Your task to perform on an android device: Go to internet settings Image 0: 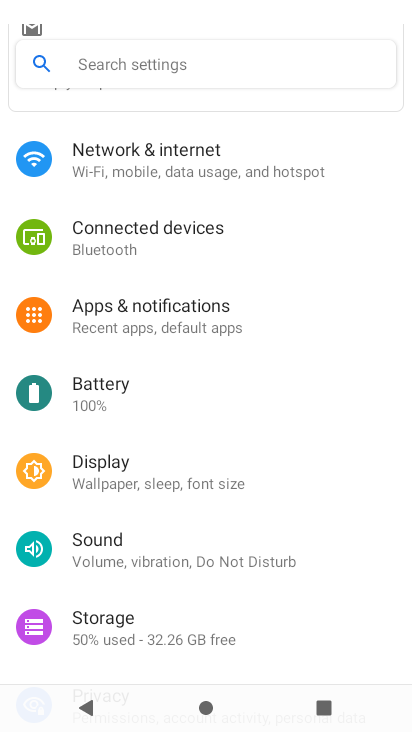
Step 0: press home button
Your task to perform on an android device: Go to internet settings Image 1: 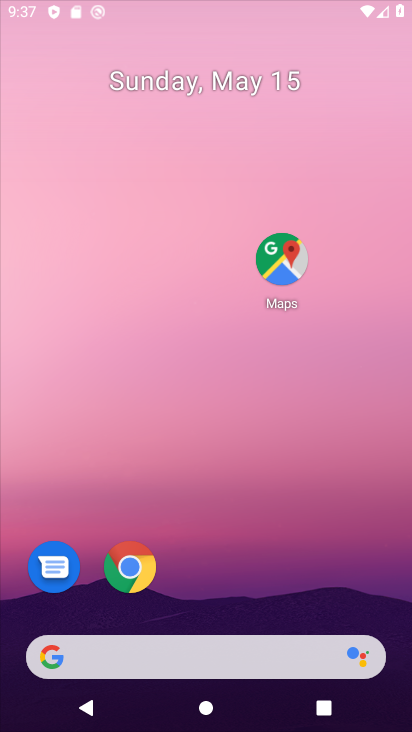
Step 1: drag from (253, 542) to (253, 35)
Your task to perform on an android device: Go to internet settings Image 2: 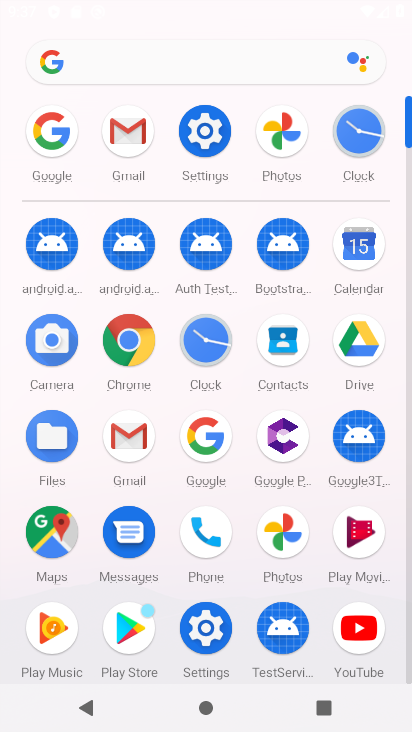
Step 2: click (200, 129)
Your task to perform on an android device: Go to internet settings Image 3: 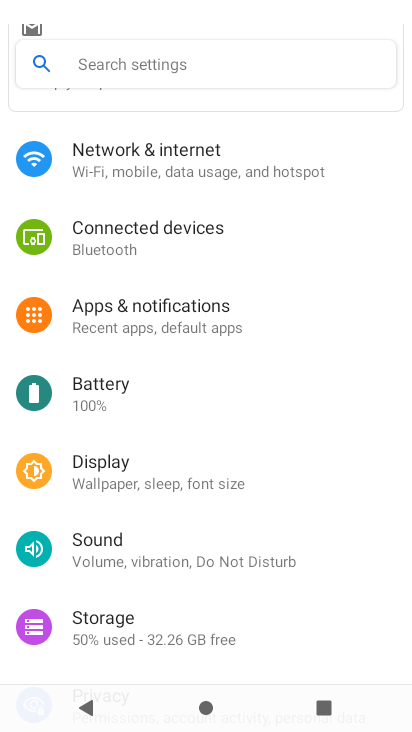
Step 3: click (179, 164)
Your task to perform on an android device: Go to internet settings Image 4: 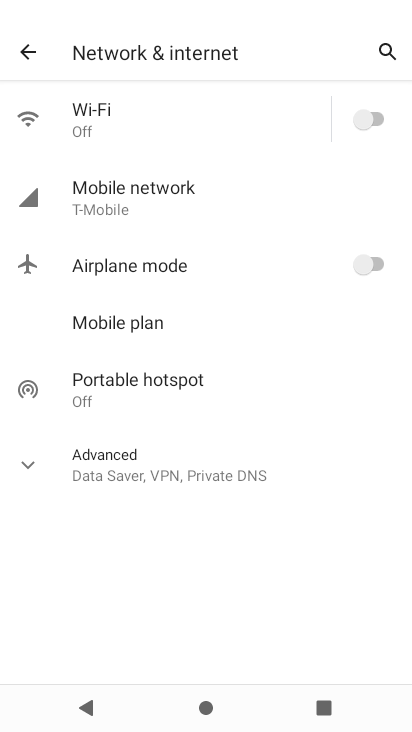
Step 4: click (155, 134)
Your task to perform on an android device: Go to internet settings Image 5: 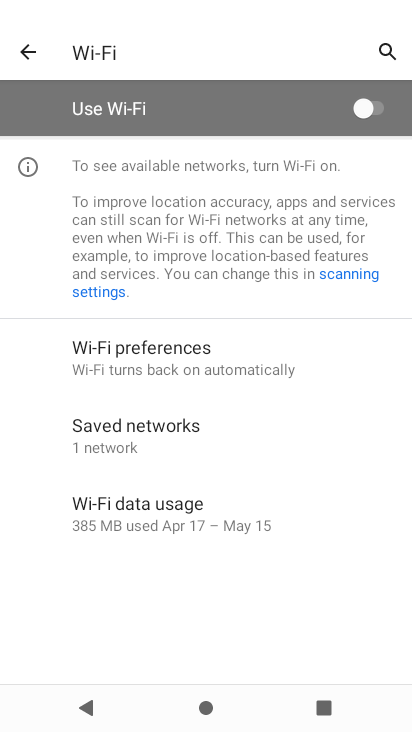
Step 5: click (360, 112)
Your task to perform on an android device: Go to internet settings Image 6: 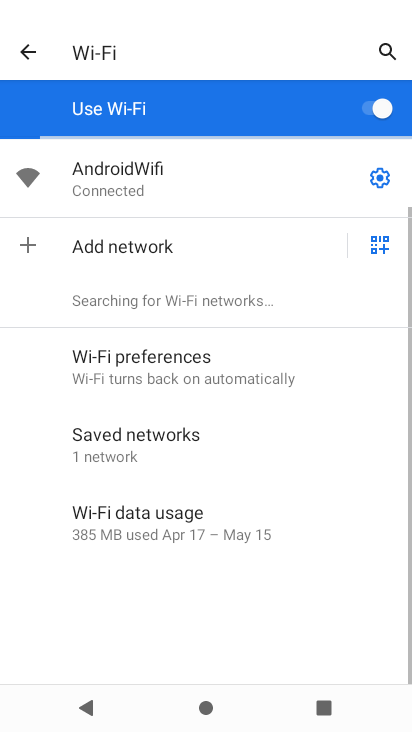
Step 6: click (384, 175)
Your task to perform on an android device: Go to internet settings Image 7: 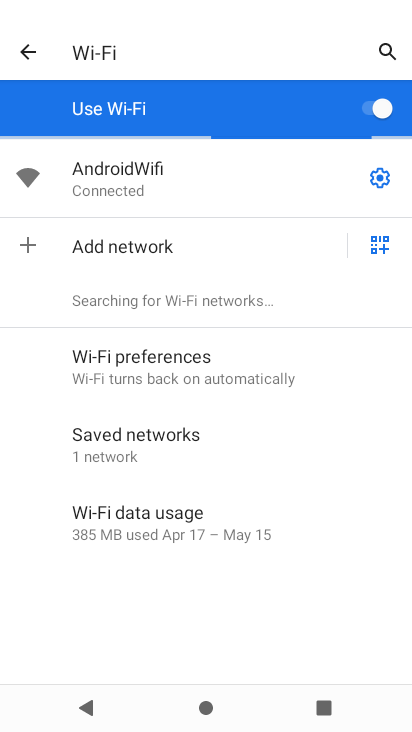
Step 7: click (381, 180)
Your task to perform on an android device: Go to internet settings Image 8: 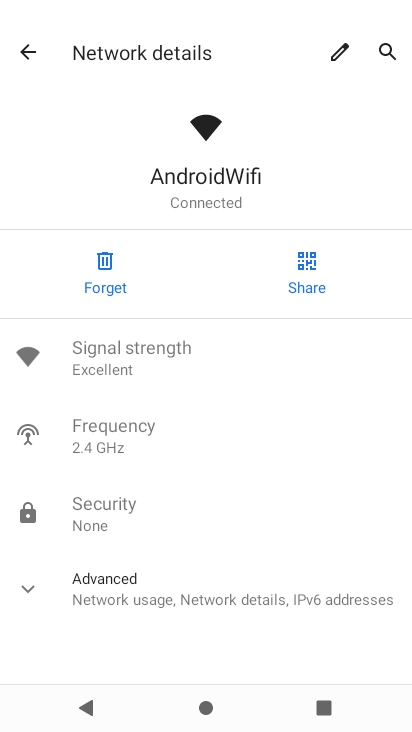
Step 8: task complete